Your task to perform on an android device: Open settings on Google Maps Image 0: 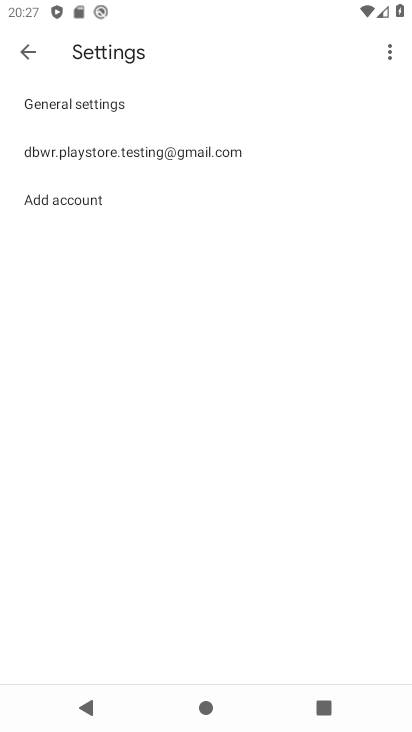
Step 0: press home button
Your task to perform on an android device: Open settings on Google Maps Image 1: 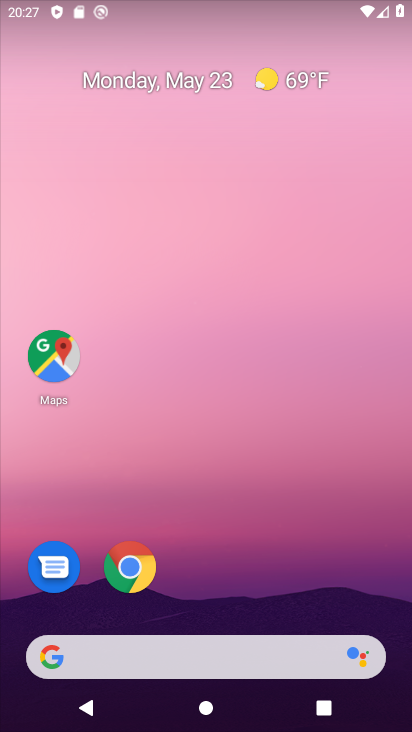
Step 1: drag from (209, 567) to (291, 10)
Your task to perform on an android device: Open settings on Google Maps Image 2: 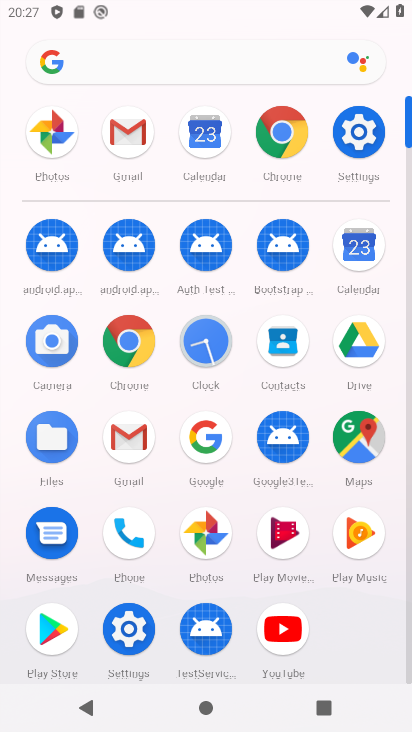
Step 2: click (361, 442)
Your task to perform on an android device: Open settings on Google Maps Image 3: 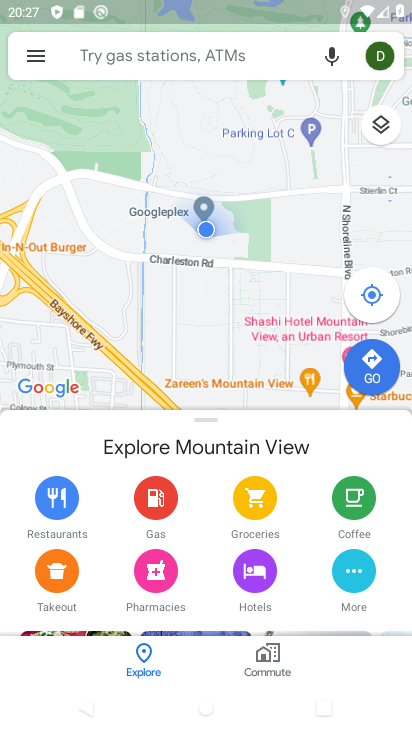
Step 3: click (36, 54)
Your task to perform on an android device: Open settings on Google Maps Image 4: 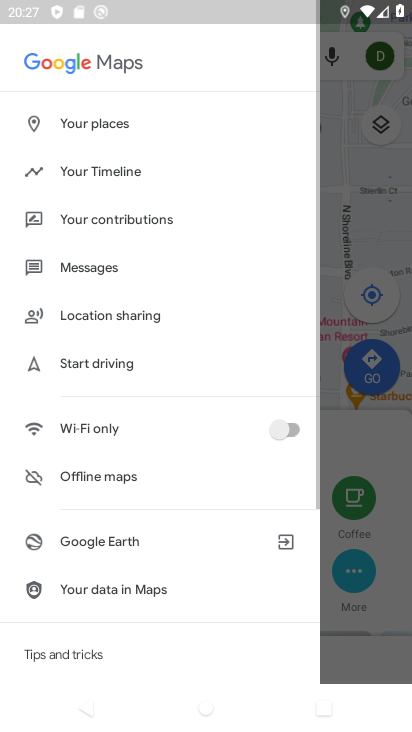
Step 4: drag from (103, 609) to (145, 168)
Your task to perform on an android device: Open settings on Google Maps Image 5: 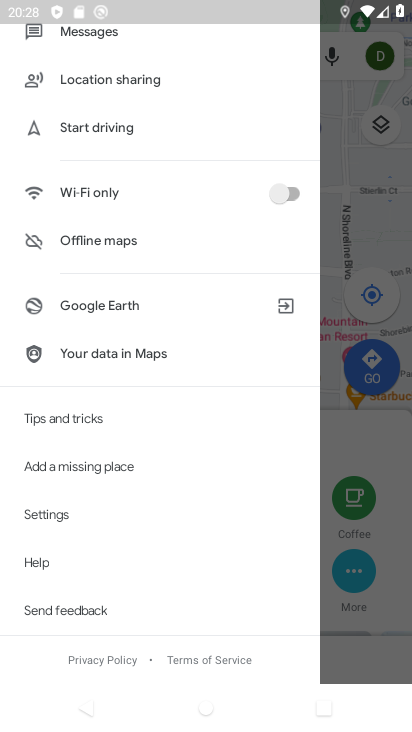
Step 5: click (62, 517)
Your task to perform on an android device: Open settings on Google Maps Image 6: 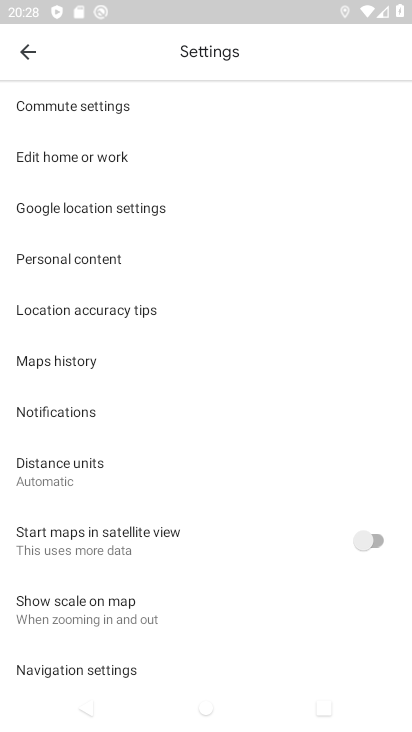
Step 6: task complete